Your task to perform on an android device: Show the shopping cart on costco. Image 0: 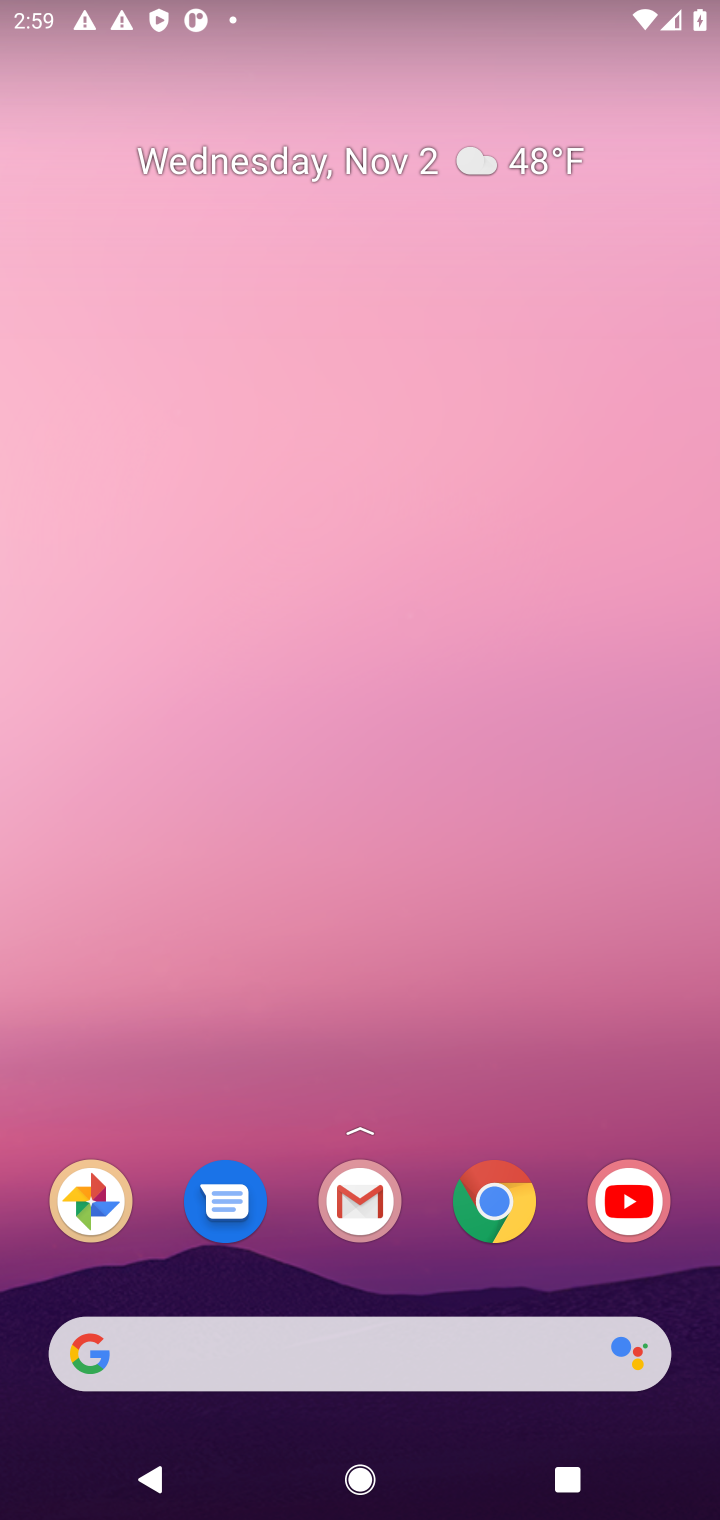
Step 0: click (515, 1190)
Your task to perform on an android device: Show the shopping cart on costco. Image 1: 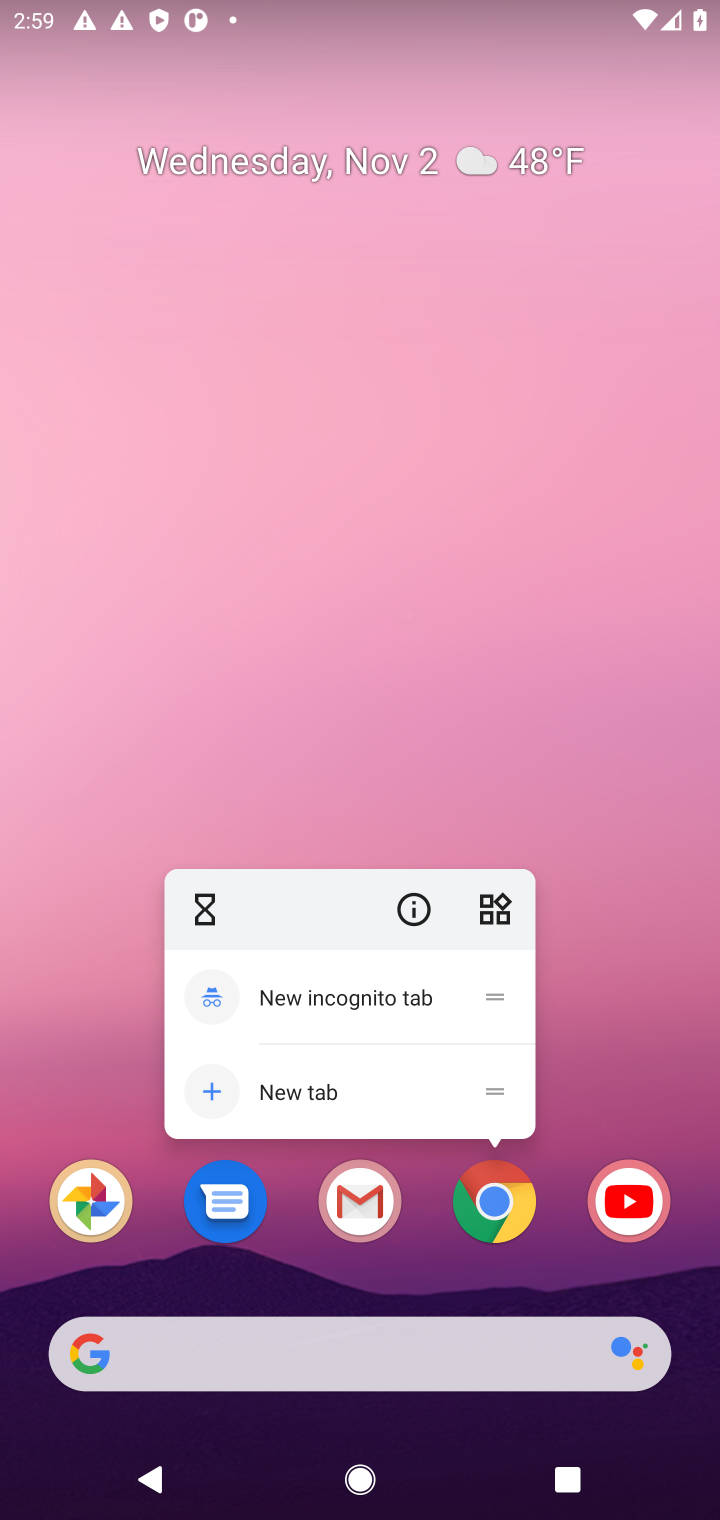
Step 1: click (515, 1190)
Your task to perform on an android device: Show the shopping cart on costco. Image 2: 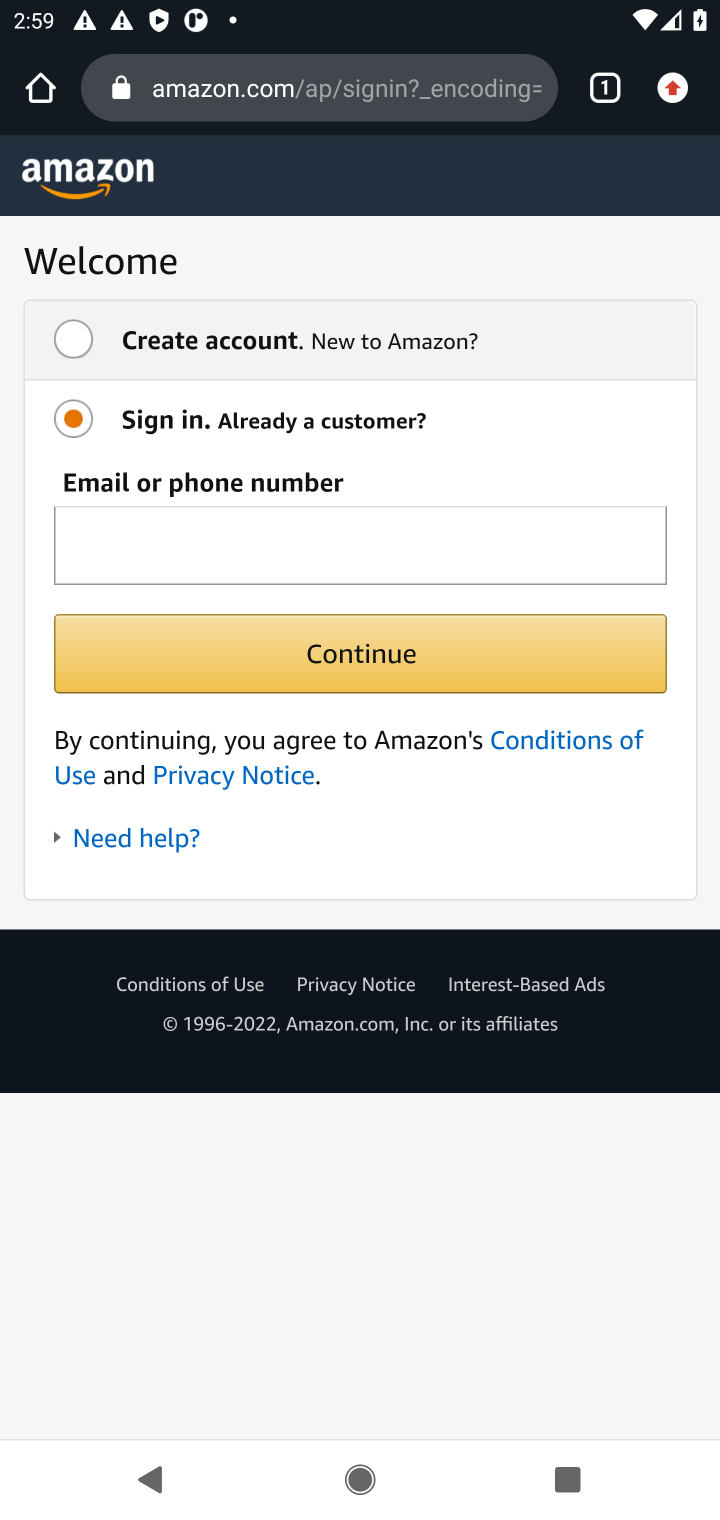
Step 2: click (503, 85)
Your task to perform on an android device: Show the shopping cart on costco. Image 3: 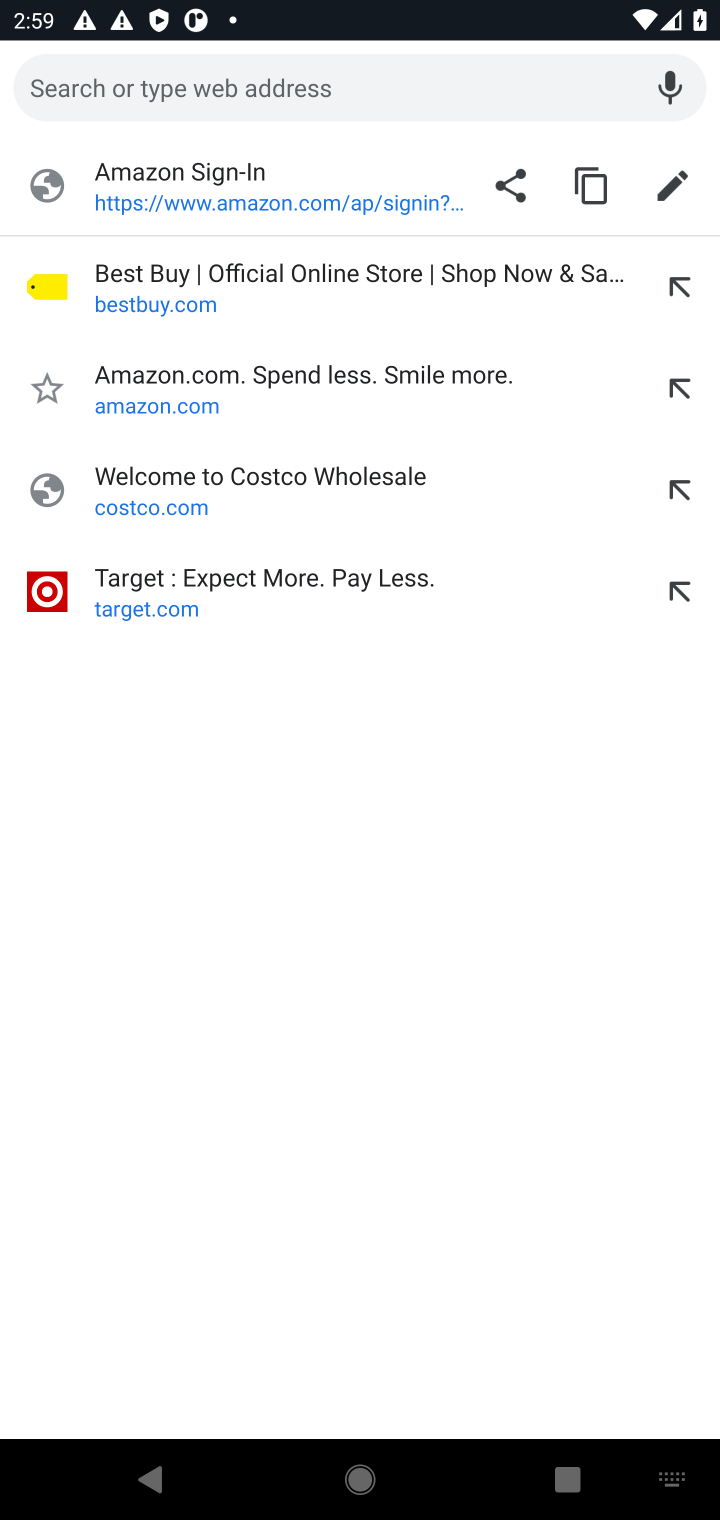
Step 3: type "costco"
Your task to perform on an android device: Show the shopping cart on costco. Image 4: 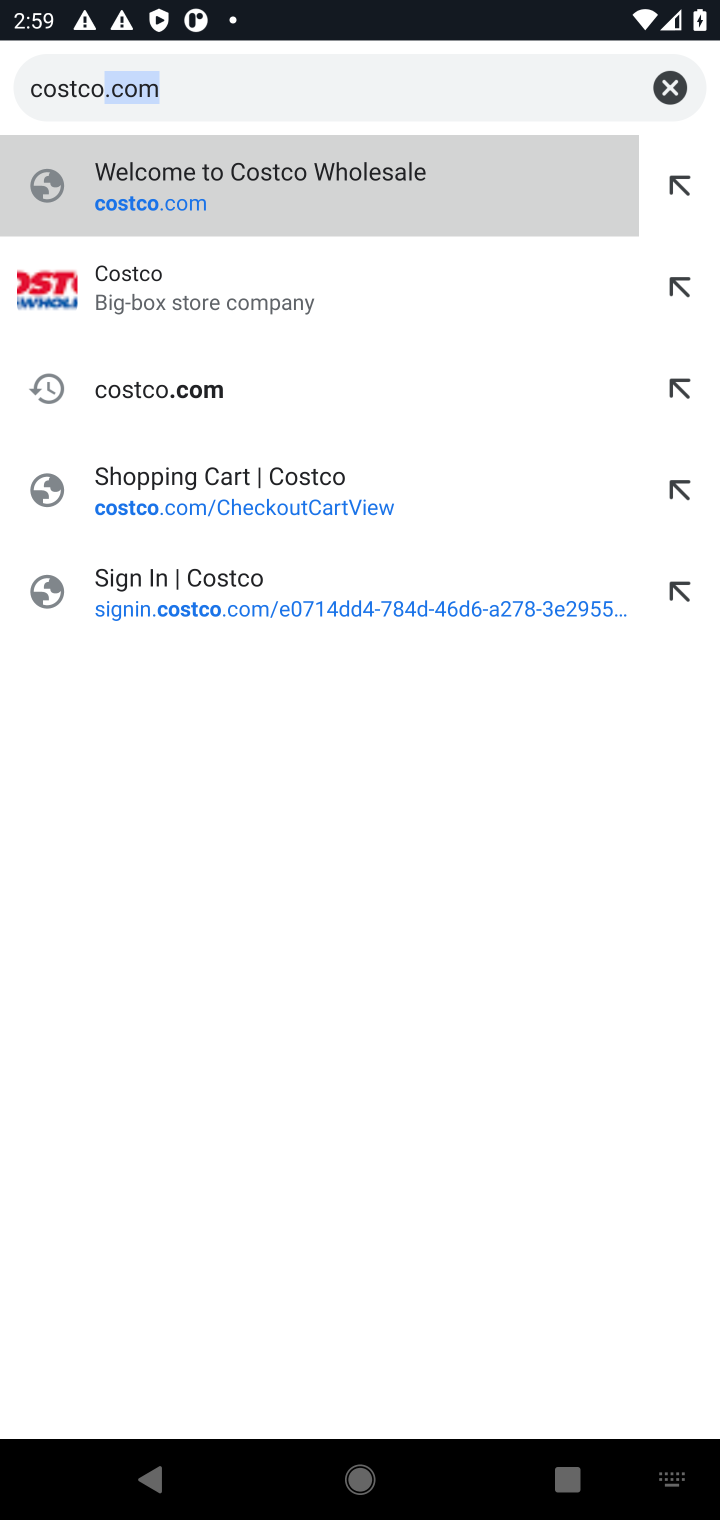
Step 4: press enter
Your task to perform on an android device: Show the shopping cart on costco. Image 5: 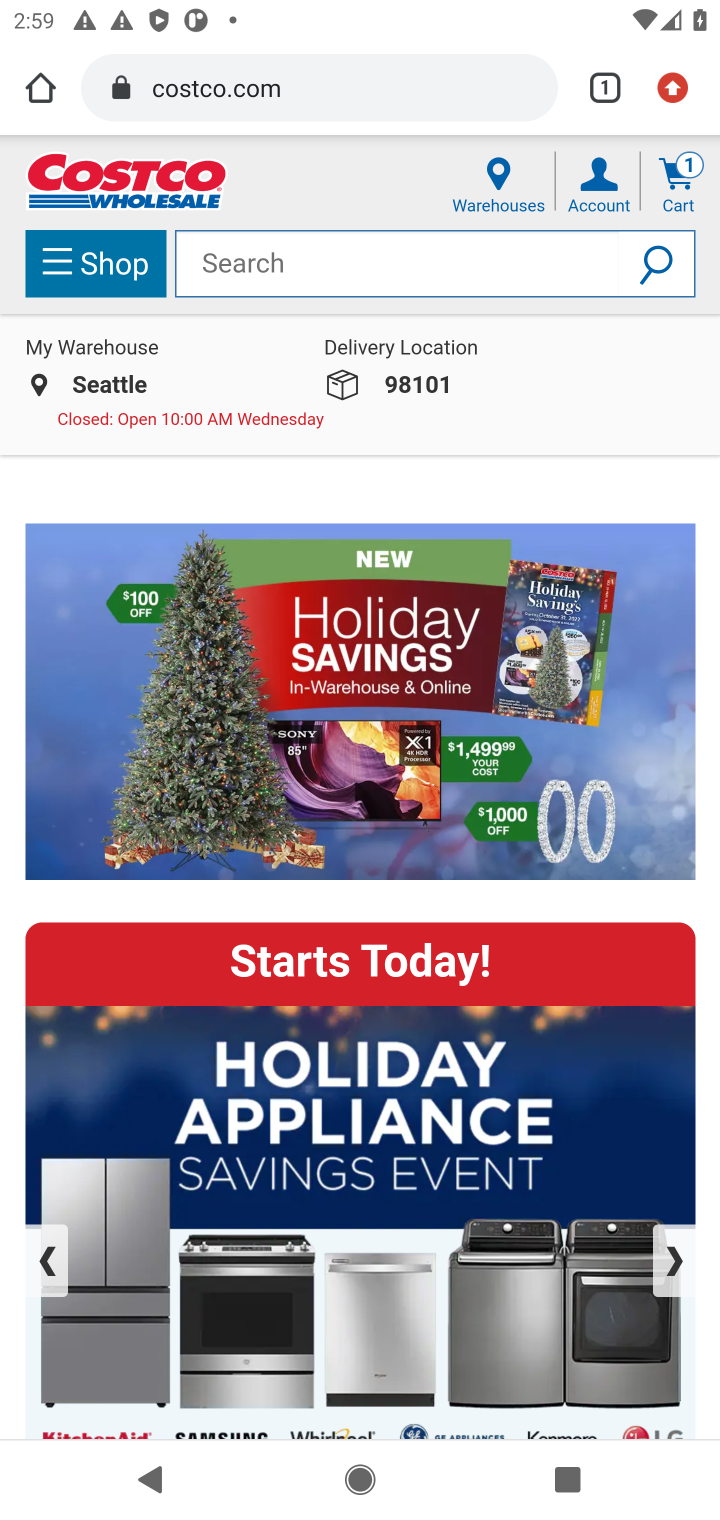
Step 5: click (679, 187)
Your task to perform on an android device: Show the shopping cart on costco. Image 6: 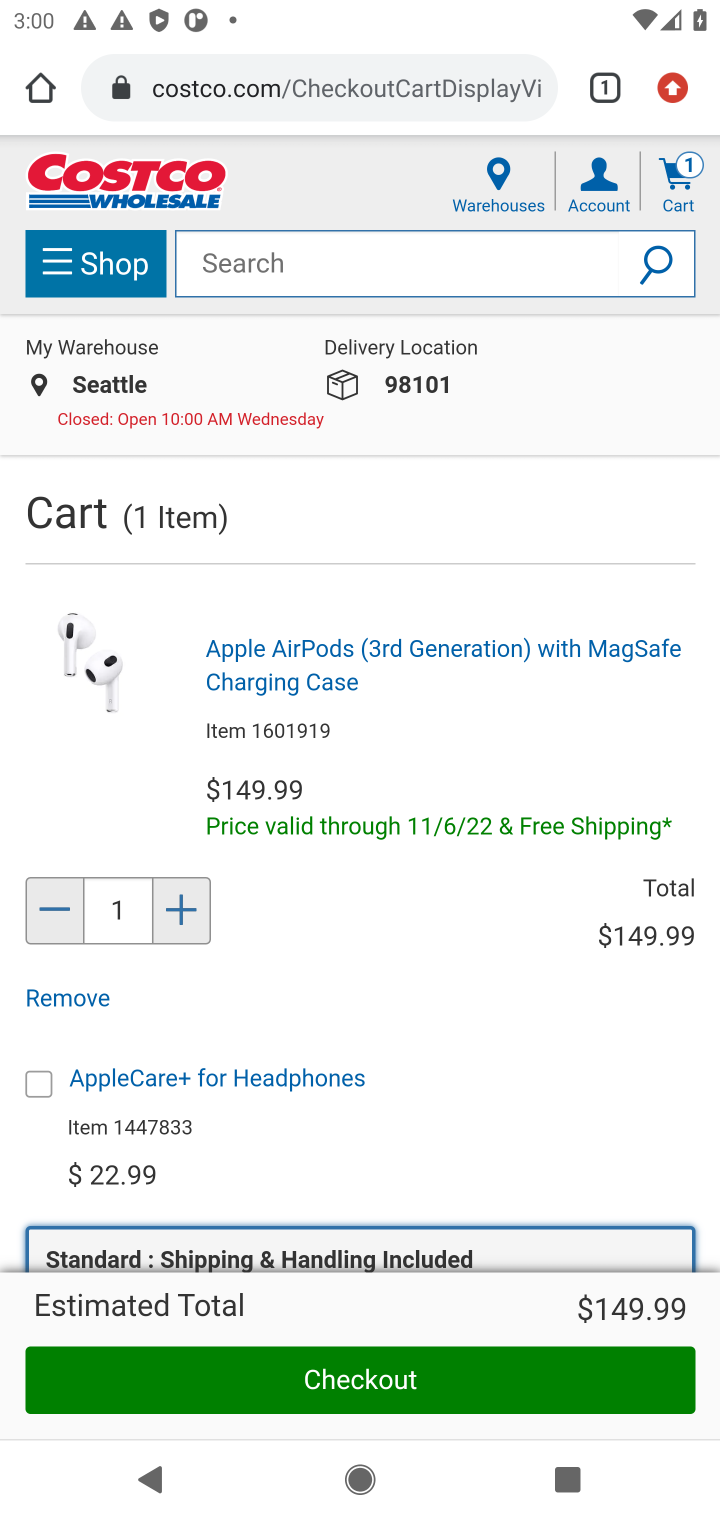
Step 6: task complete